Your task to perform on an android device: toggle notifications settings in the gmail app Image 0: 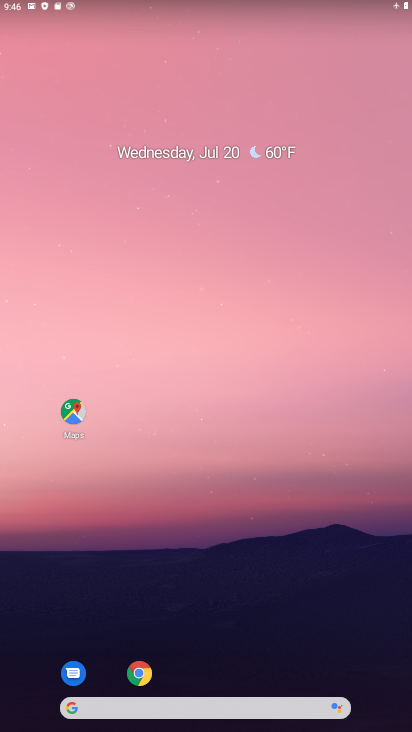
Step 0: drag from (219, 683) to (225, 199)
Your task to perform on an android device: toggle notifications settings in the gmail app Image 1: 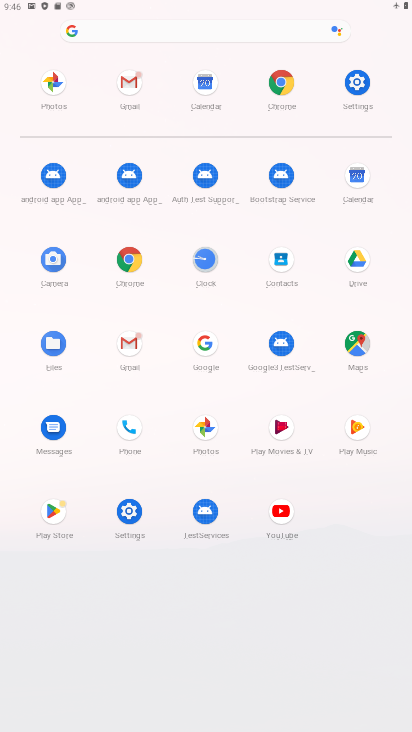
Step 1: click (137, 356)
Your task to perform on an android device: toggle notifications settings in the gmail app Image 2: 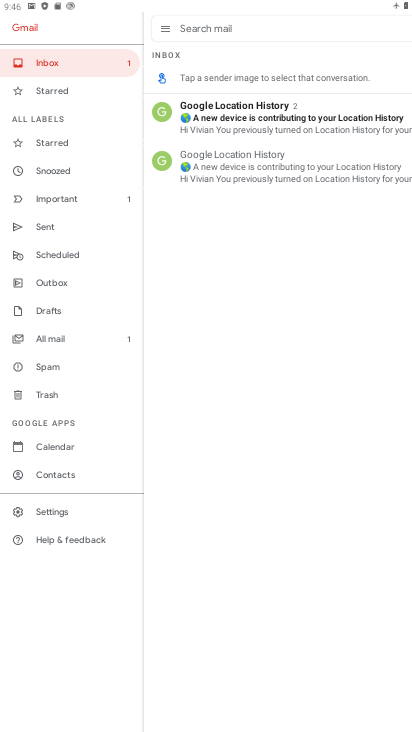
Step 2: click (48, 506)
Your task to perform on an android device: toggle notifications settings in the gmail app Image 3: 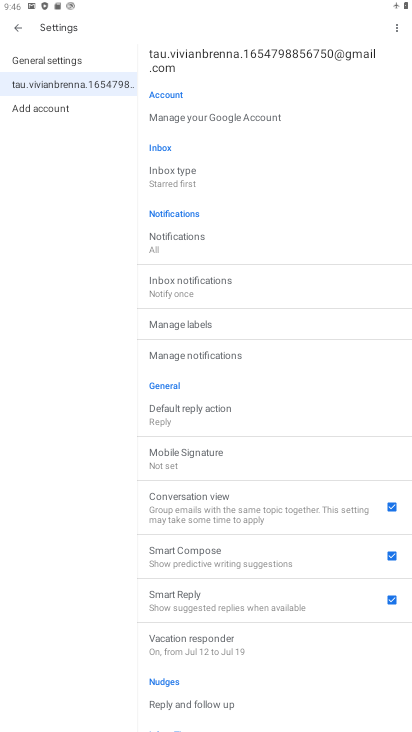
Step 3: click (89, 61)
Your task to perform on an android device: toggle notifications settings in the gmail app Image 4: 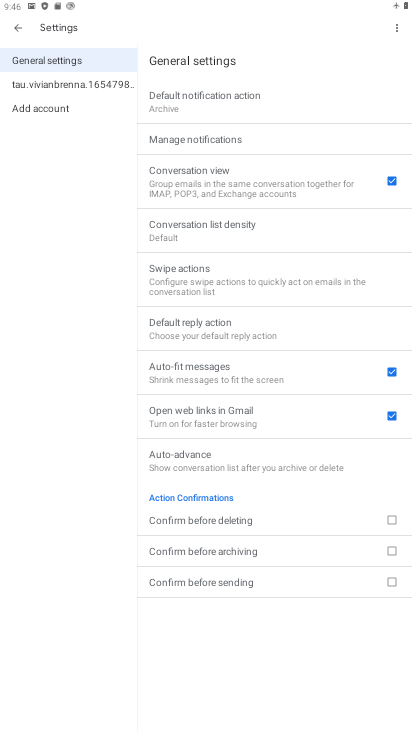
Step 4: click (216, 139)
Your task to perform on an android device: toggle notifications settings in the gmail app Image 5: 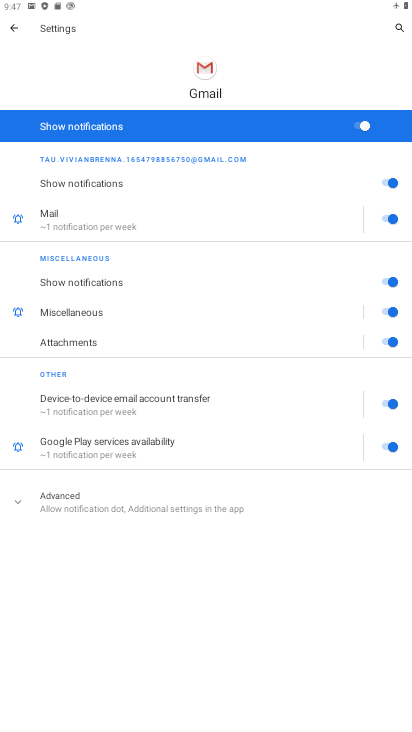
Step 5: click (335, 128)
Your task to perform on an android device: toggle notifications settings in the gmail app Image 6: 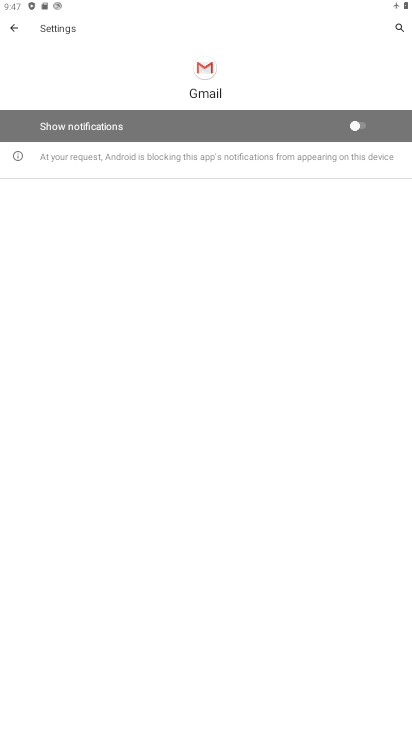
Step 6: task complete